Your task to perform on an android device: toggle improve location accuracy Image 0: 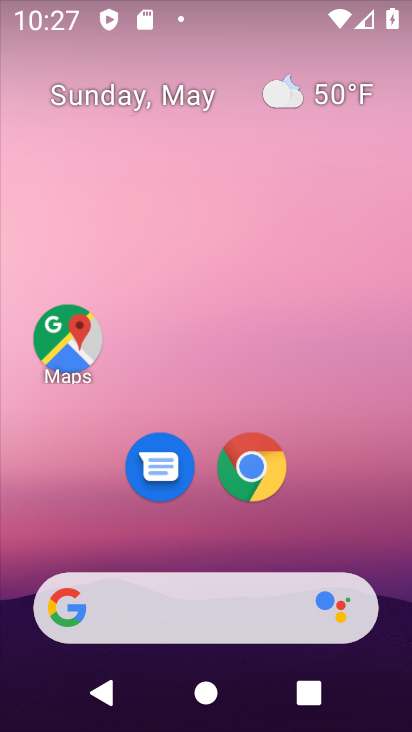
Step 0: drag from (209, 531) to (215, 83)
Your task to perform on an android device: toggle improve location accuracy Image 1: 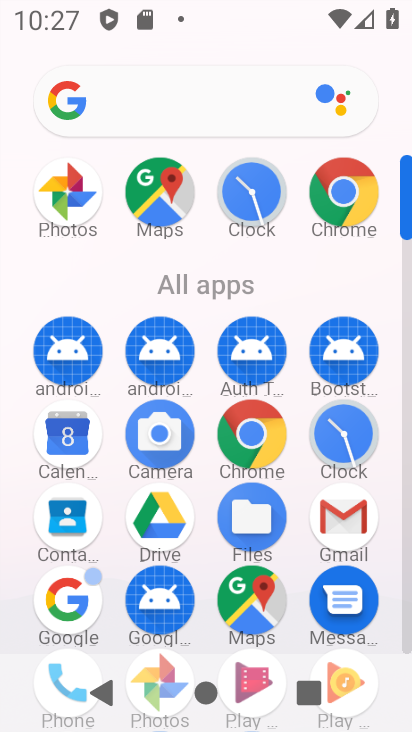
Step 1: drag from (197, 470) to (234, 143)
Your task to perform on an android device: toggle improve location accuracy Image 2: 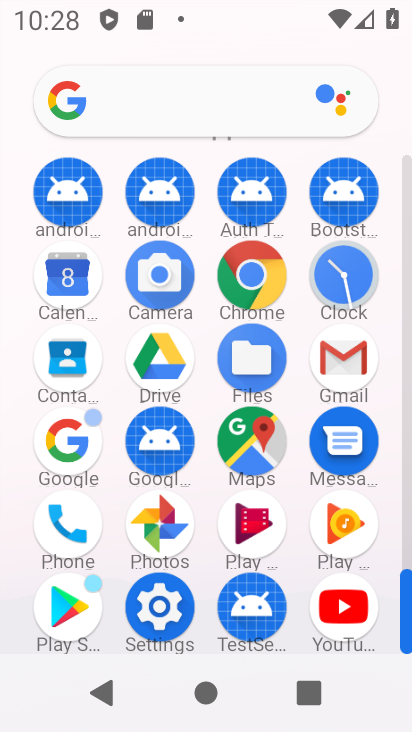
Step 2: click (176, 602)
Your task to perform on an android device: toggle improve location accuracy Image 3: 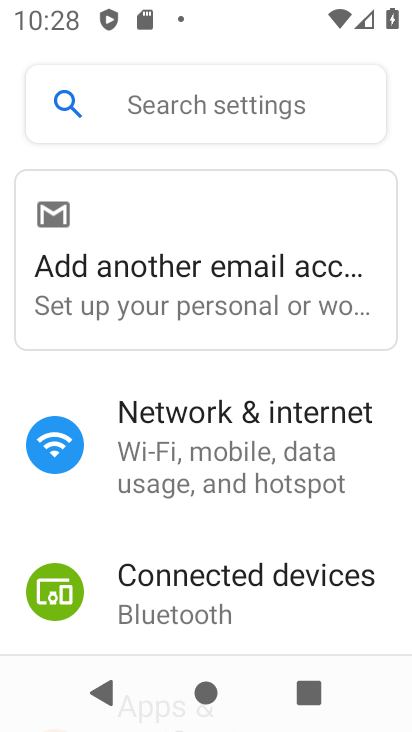
Step 3: drag from (215, 607) to (238, 122)
Your task to perform on an android device: toggle improve location accuracy Image 4: 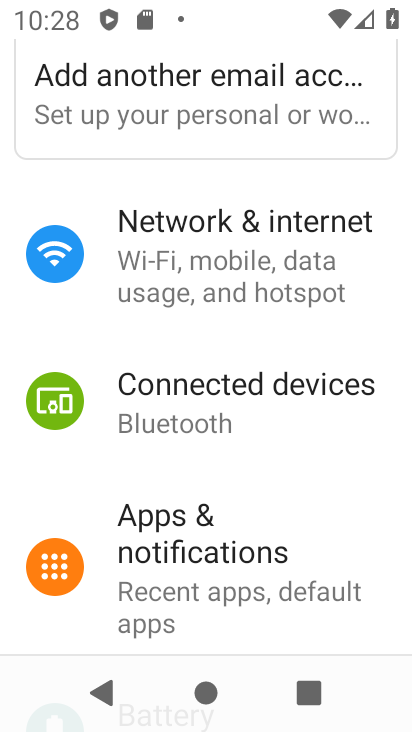
Step 4: drag from (209, 541) to (242, 189)
Your task to perform on an android device: toggle improve location accuracy Image 5: 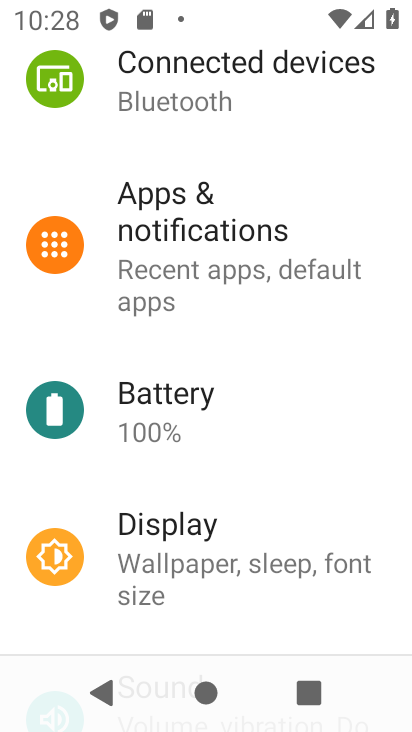
Step 5: drag from (207, 636) to (251, 280)
Your task to perform on an android device: toggle improve location accuracy Image 6: 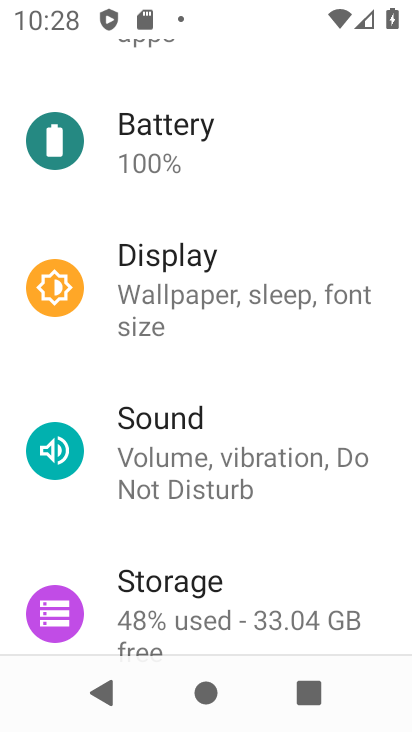
Step 6: drag from (239, 581) to (259, 218)
Your task to perform on an android device: toggle improve location accuracy Image 7: 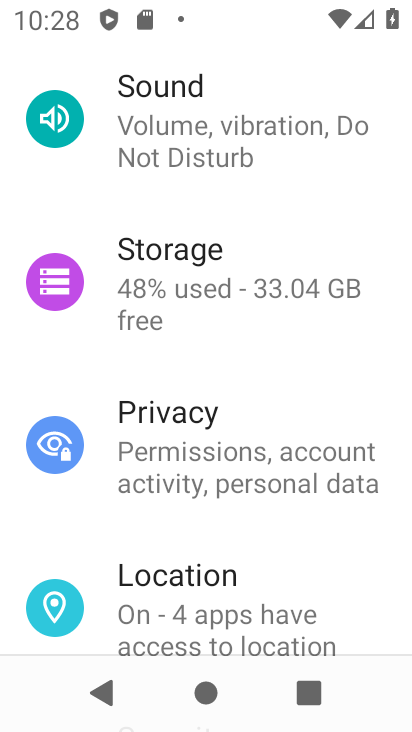
Step 7: click (267, 583)
Your task to perform on an android device: toggle improve location accuracy Image 8: 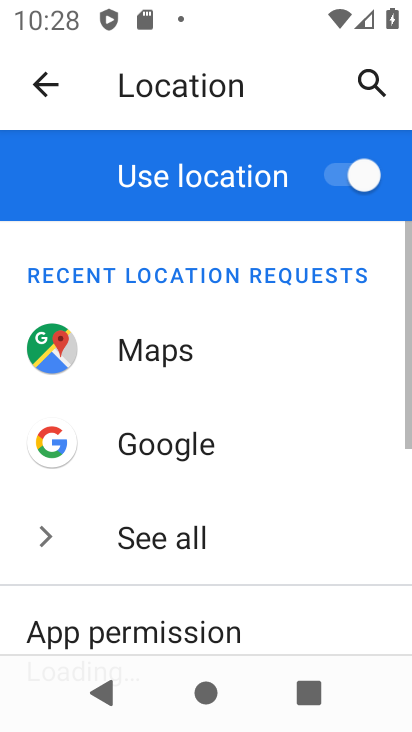
Step 8: drag from (267, 583) to (251, 87)
Your task to perform on an android device: toggle improve location accuracy Image 9: 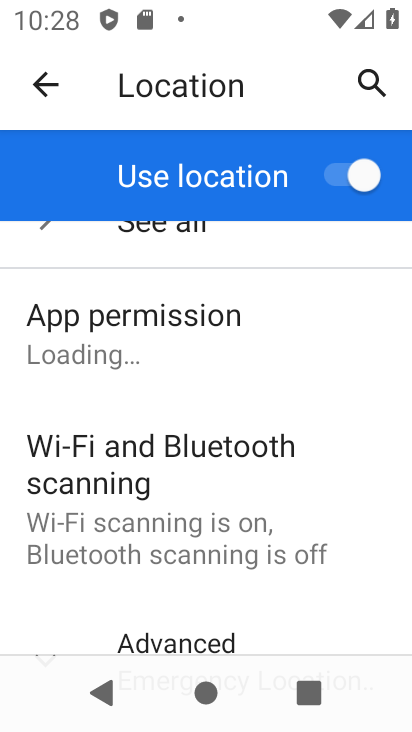
Step 9: drag from (257, 614) to (305, 263)
Your task to perform on an android device: toggle improve location accuracy Image 10: 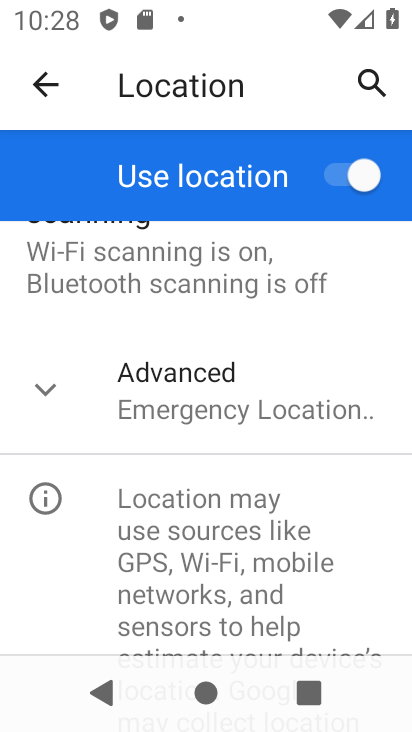
Step 10: click (271, 407)
Your task to perform on an android device: toggle improve location accuracy Image 11: 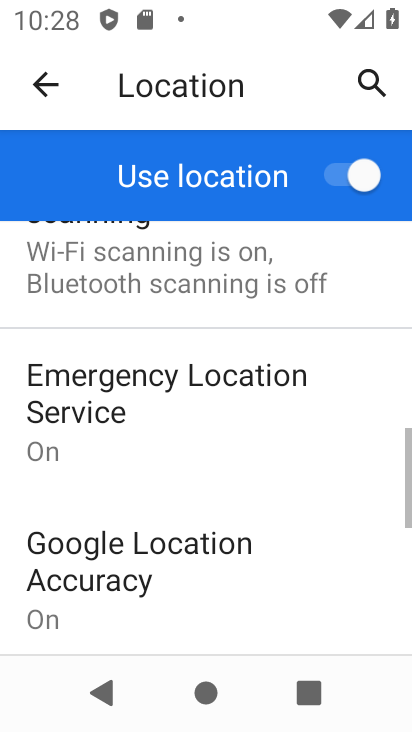
Step 11: drag from (271, 517) to (276, 448)
Your task to perform on an android device: toggle improve location accuracy Image 12: 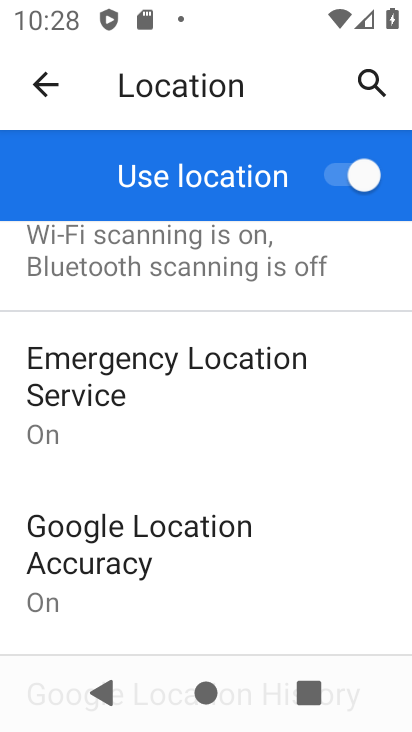
Step 12: click (208, 535)
Your task to perform on an android device: toggle improve location accuracy Image 13: 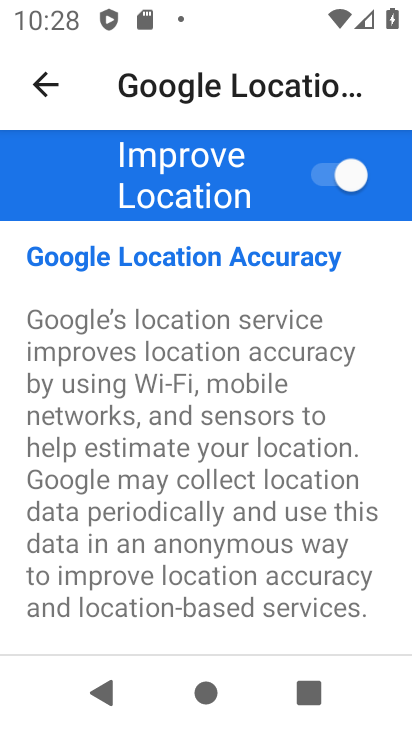
Step 13: click (324, 178)
Your task to perform on an android device: toggle improve location accuracy Image 14: 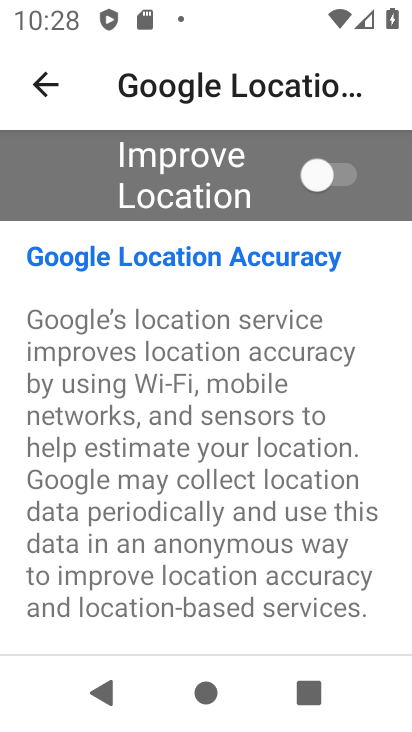
Step 14: task complete